Your task to perform on an android device: Go to calendar. Show me events next week Image 0: 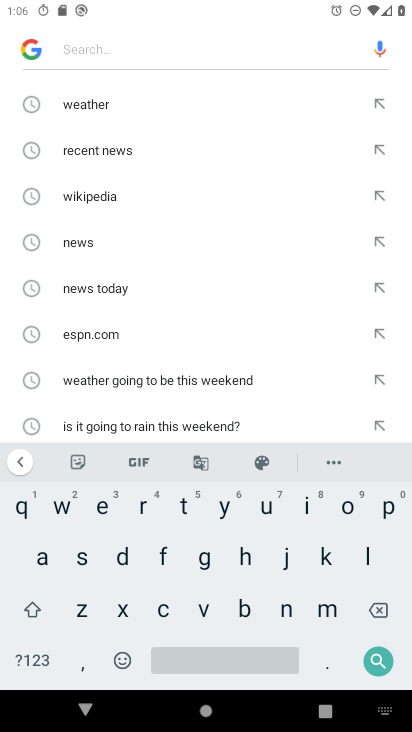
Step 0: press home button
Your task to perform on an android device: Go to calendar. Show me events next week Image 1: 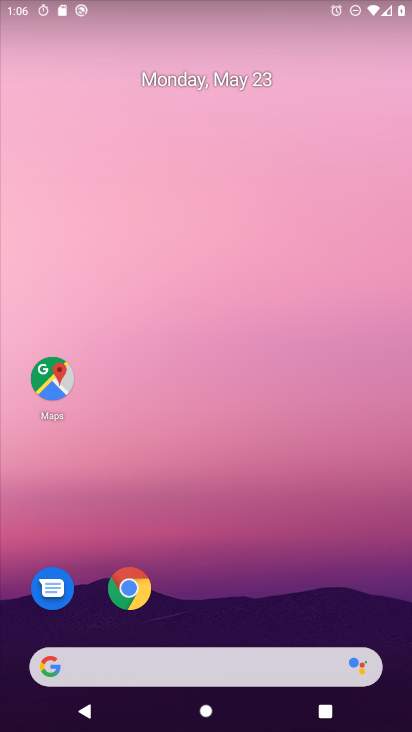
Step 1: drag from (231, 687) to (214, 253)
Your task to perform on an android device: Go to calendar. Show me events next week Image 2: 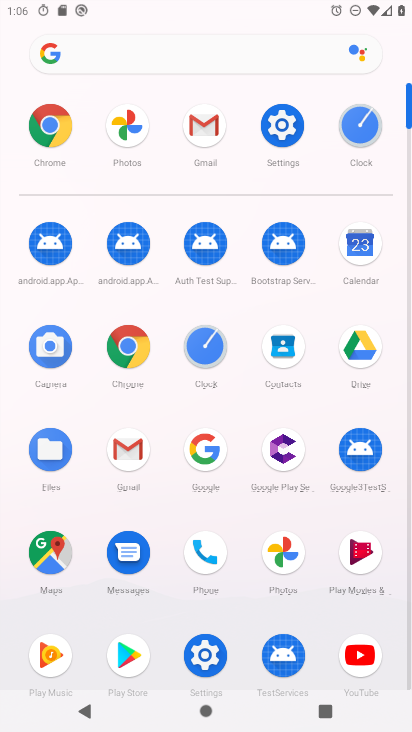
Step 2: click (354, 257)
Your task to perform on an android device: Go to calendar. Show me events next week Image 3: 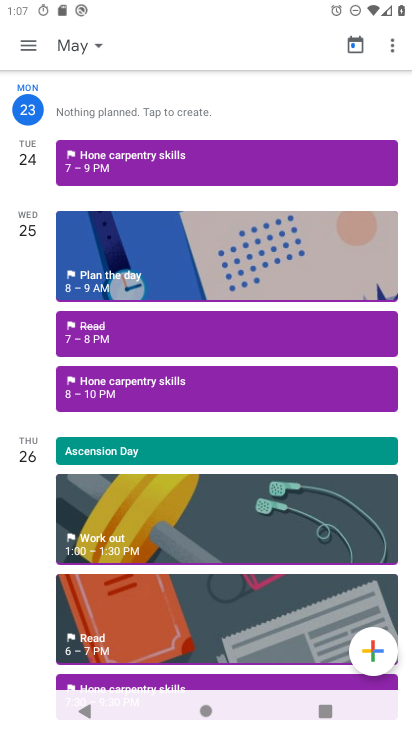
Step 3: task complete